Your task to perform on an android device: clear history in the chrome app Image 0: 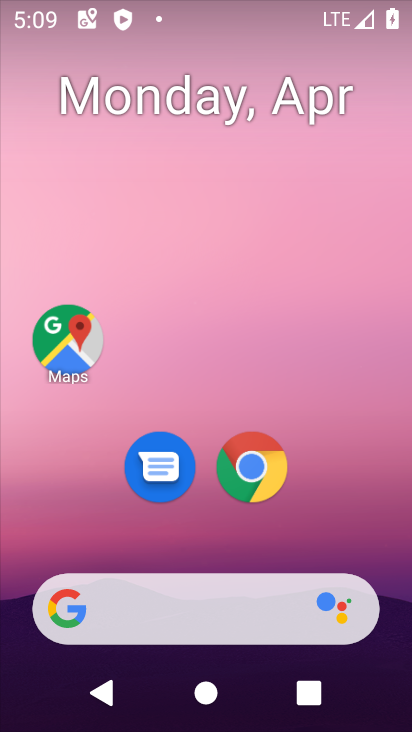
Step 0: drag from (355, 0) to (286, 3)
Your task to perform on an android device: clear history in the chrome app Image 1: 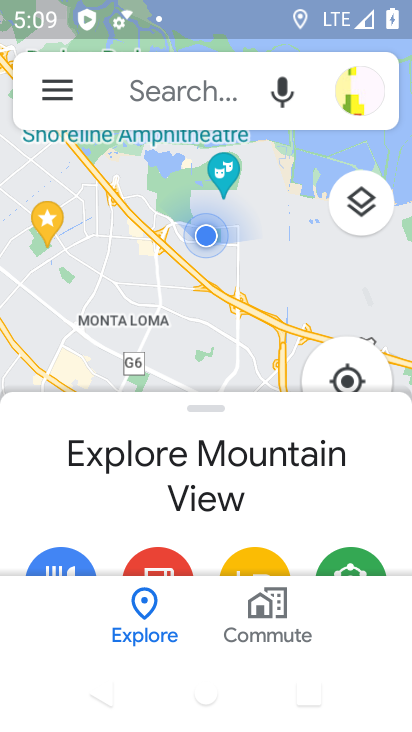
Step 1: press home button
Your task to perform on an android device: clear history in the chrome app Image 2: 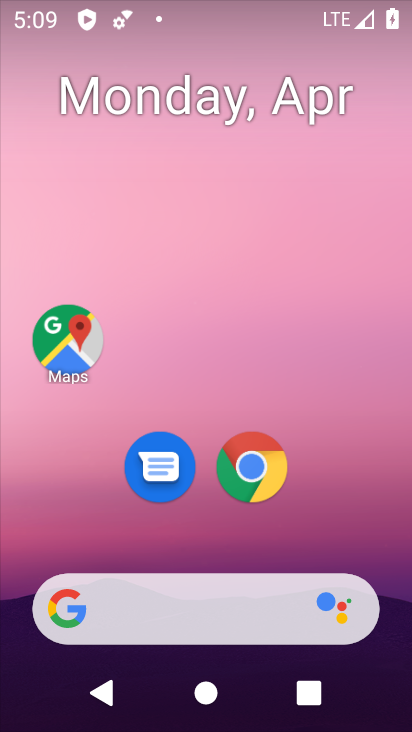
Step 2: drag from (279, 565) to (343, 4)
Your task to perform on an android device: clear history in the chrome app Image 3: 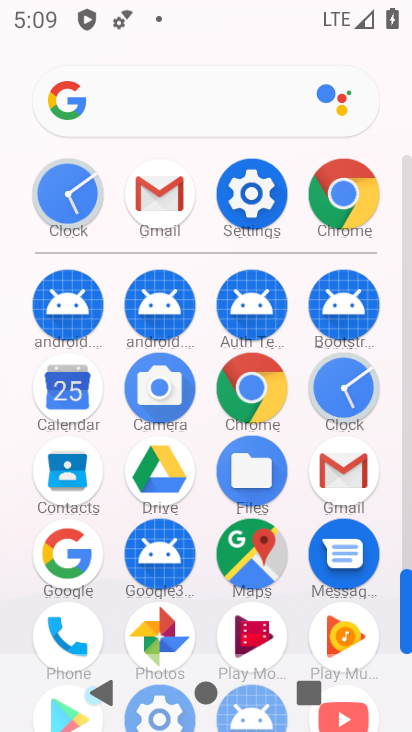
Step 3: click (369, 192)
Your task to perform on an android device: clear history in the chrome app Image 4: 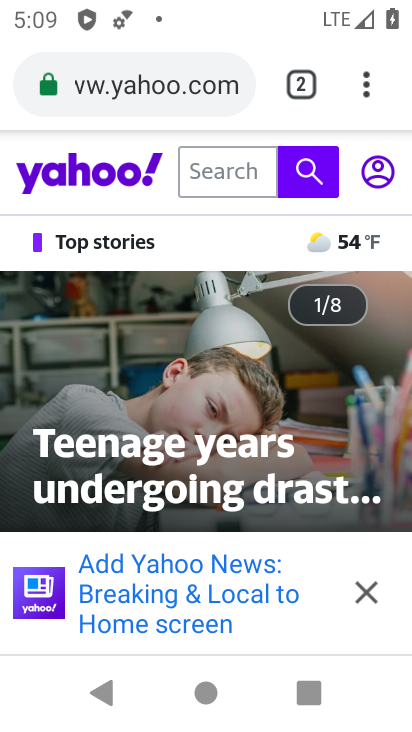
Step 4: click (361, 70)
Your task to perform on an android device: clear history in the chrome app Image 5: 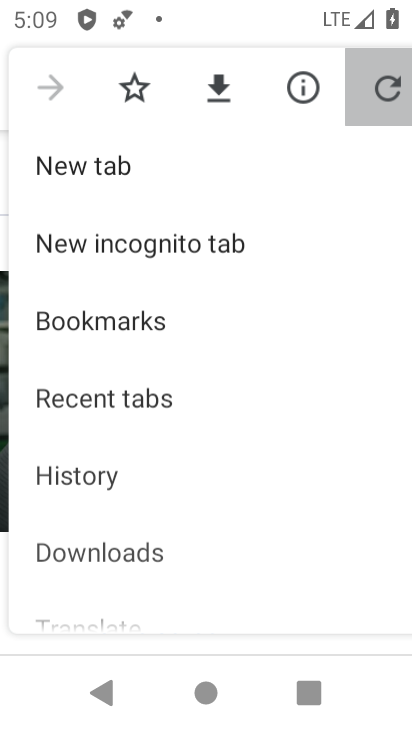
Step 5: drag from (361, 70) to (154, 490)
Your task to perform on an android device: clear history in the chrome app Image 6: 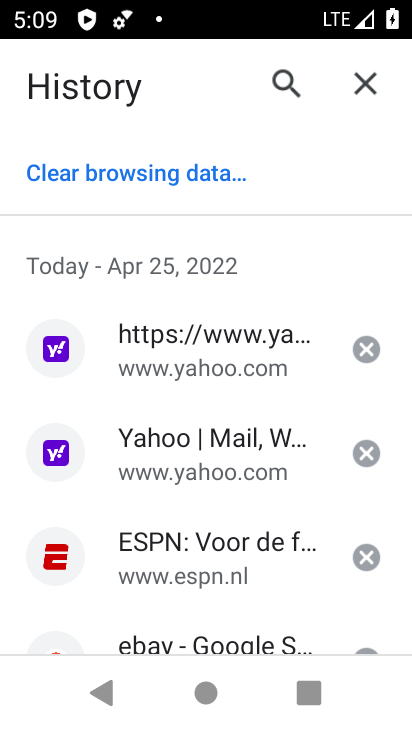
Step 6: click (202, 178)
Your task to perform on an android device: clear history in the chrome app Image 7: 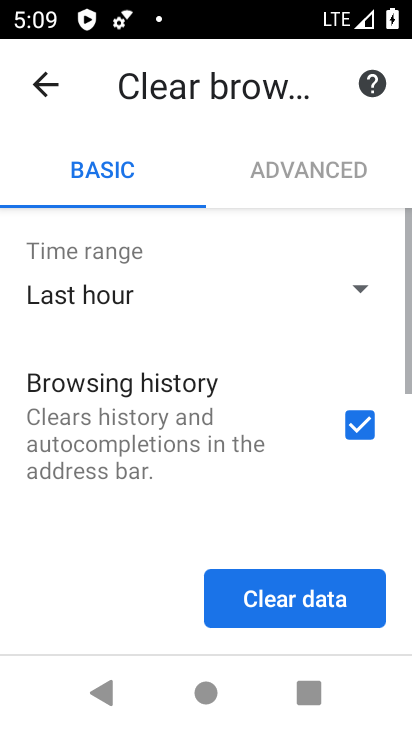
Step 7: click (320, 584)
Your task to perform on an android device: clear history in the chrome app Image 8: 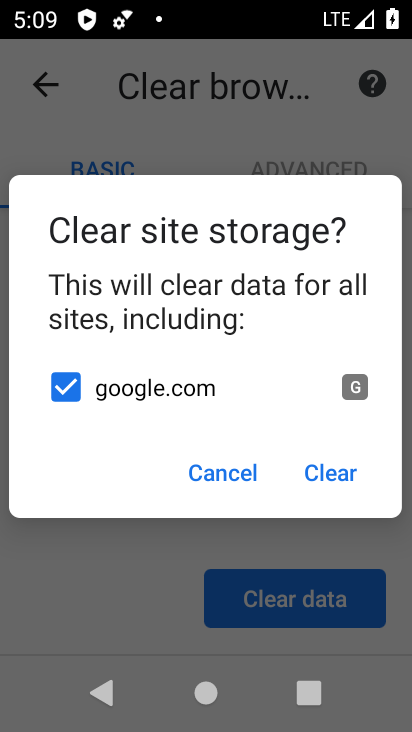
Step 8: click (323, 478)
Your task to perform on an android device: clear history in the chrome app Image 9: 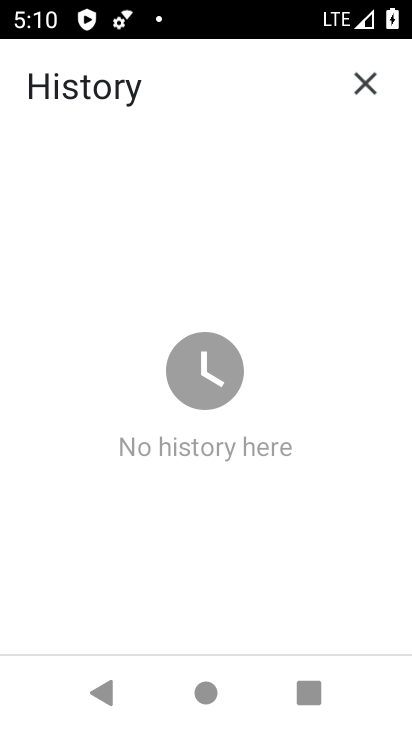
Step 9: task complete